Your task to perform on an android device: refresh tabs in the chrome app Image 0: 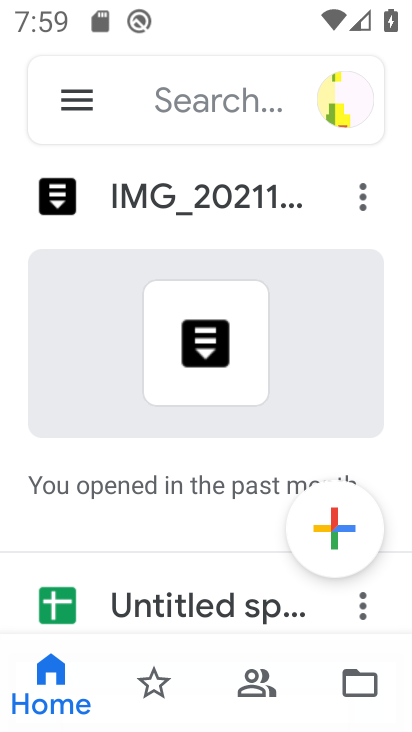
Step 0: press home button
Your task to perform on an android device: refresh tabs in the chrome app Image 1: 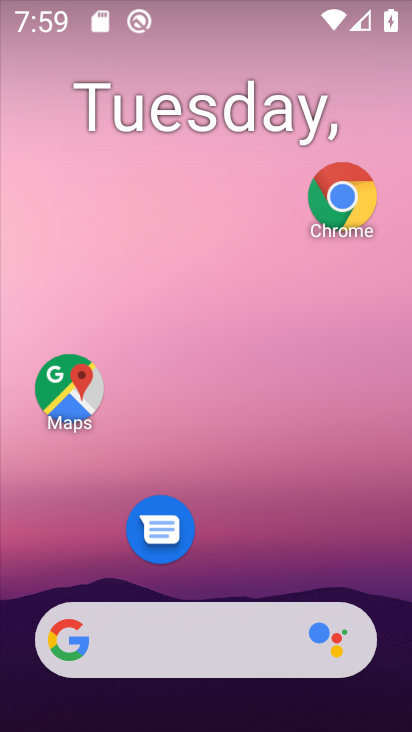
Step 1: click (351, 197)
Your task to perform on an android device: refresh tabs in the chrome app Image 2: 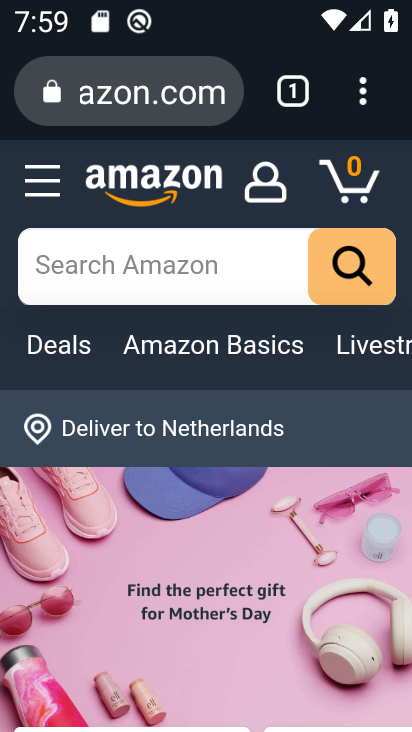
Step 2: click (376, 102)
Your task to perform on an android device: refresh tabs in the chrome app Image 3: 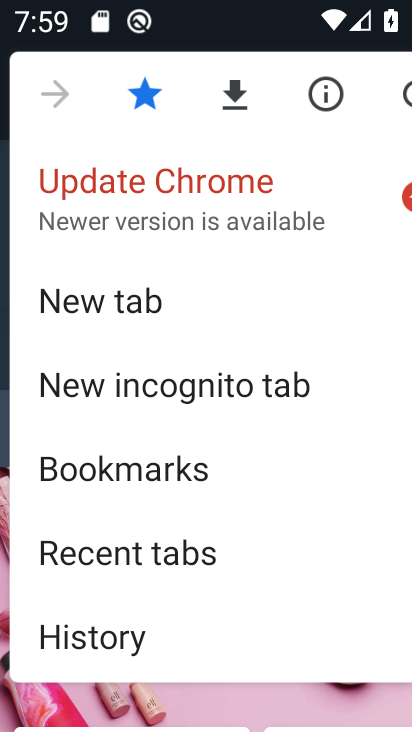
Step 3: click (407, 93)
Your task to perform on an android device: refresh tabs in the chrome app Image 4: 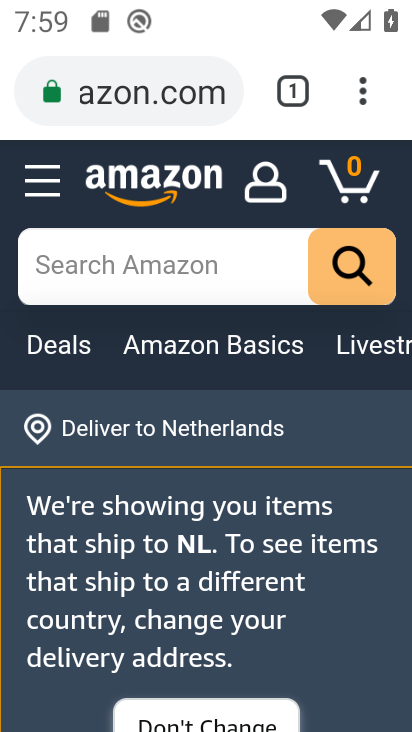
Step 4: task complete